Your task to perform on an android device: Do I have any events tomorrow? Image 0: 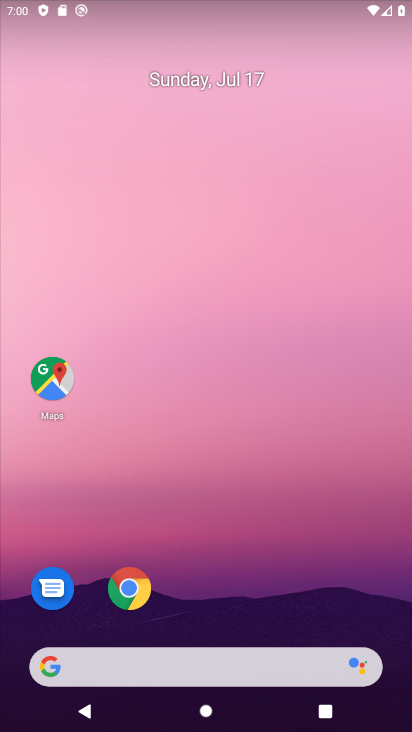
Step 0: drag from (376, 631) to (312, 48)
Your task to perform on an android device: Do I have any events tomorrow? Image 1: 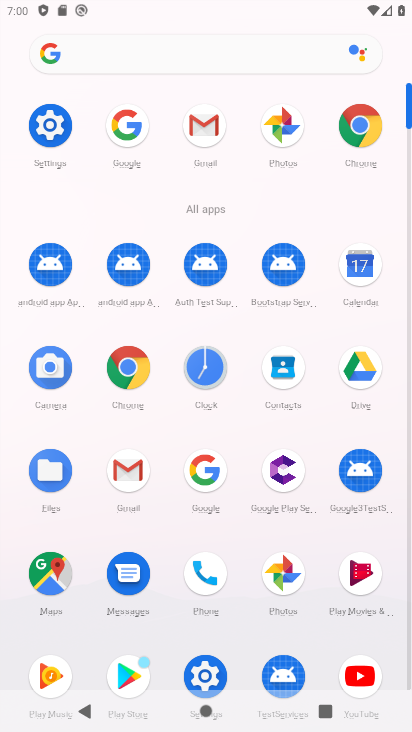
Step 1: click (360, 259)
Your task to perform on an android device: Do I have any events tomorrow? Image 2: 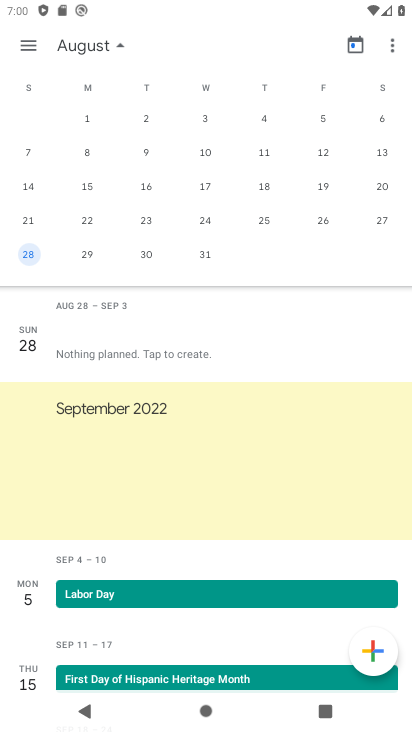
Step 2: task complete